Your task to perform on an android device: What's the weather today? Image 0: 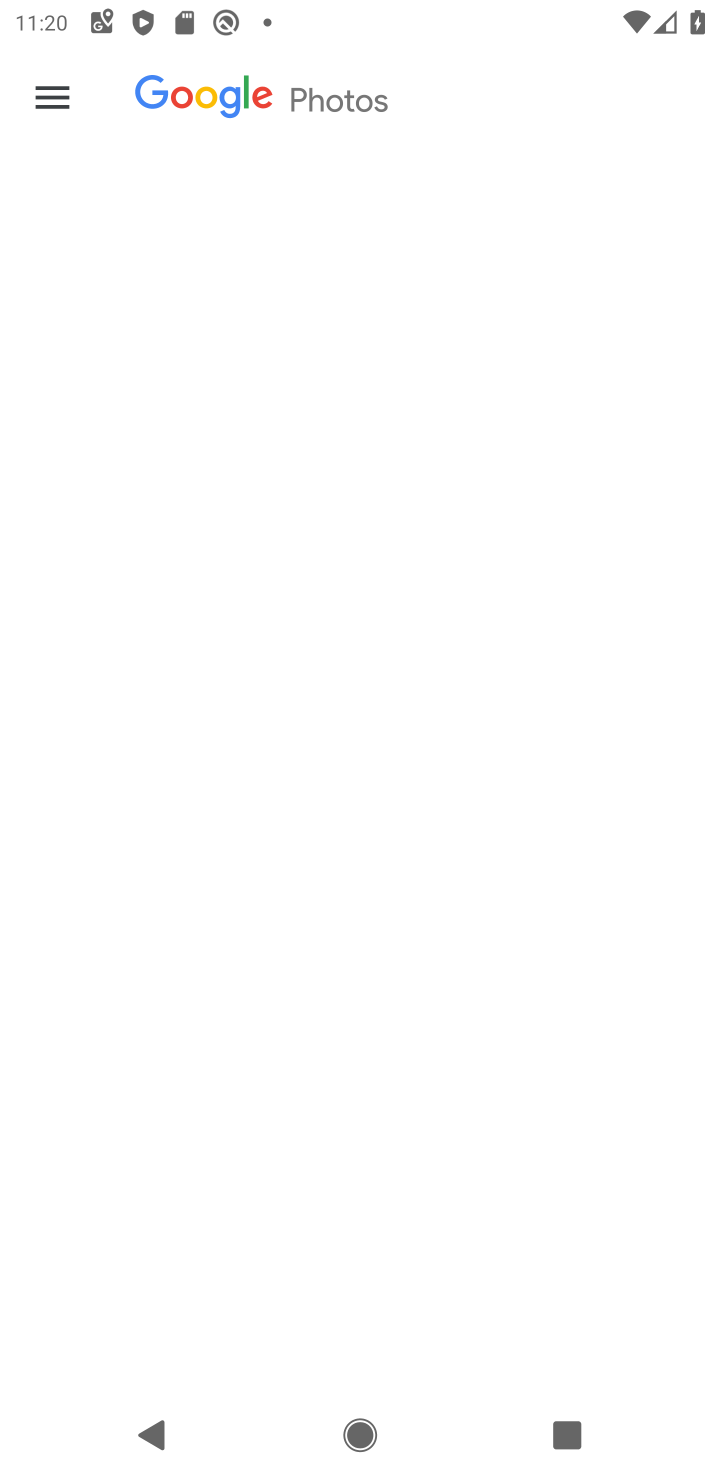
Step 0: drag from (607, 1059) to (553, 563)
Your task to perform on an android device: What's the weather today? Image 1: 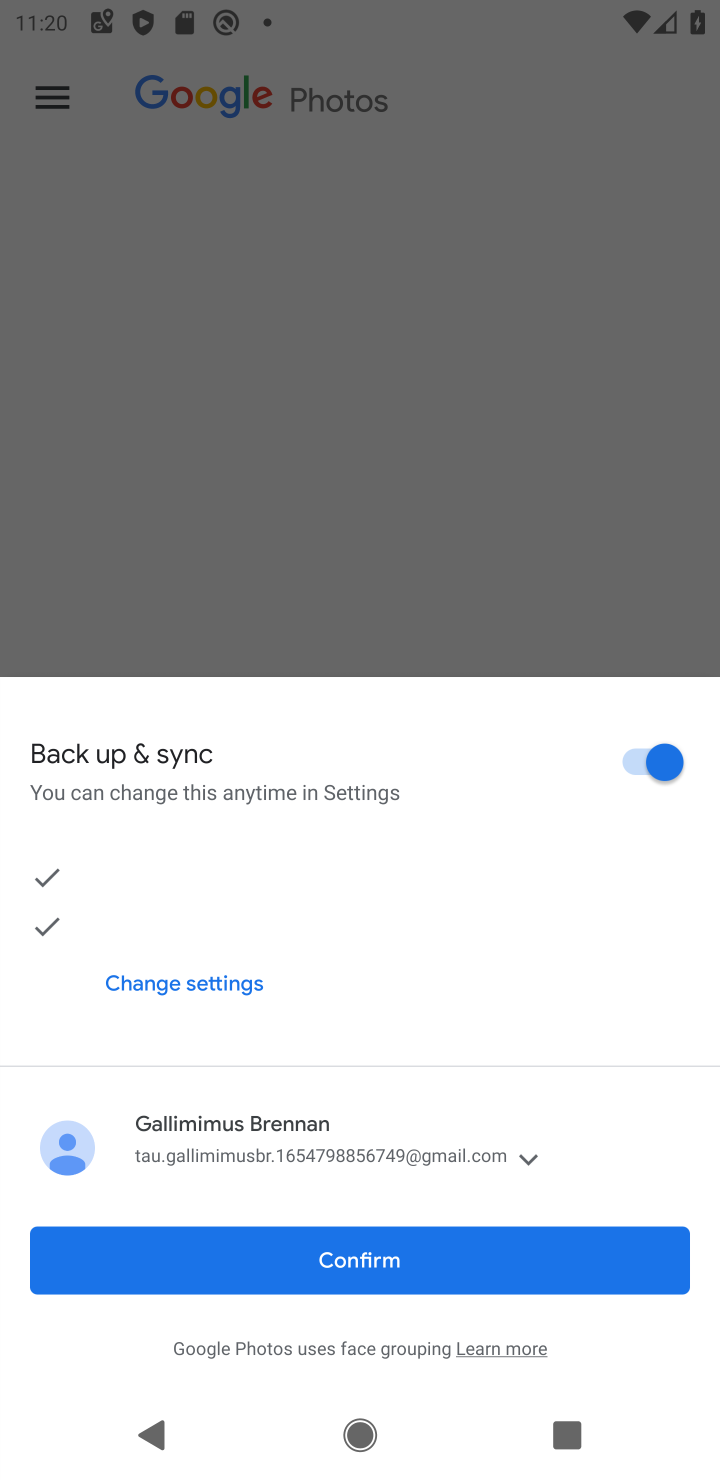
Step 1: press home button
Your task to perform on an android device: What's the weather today? Image 2: 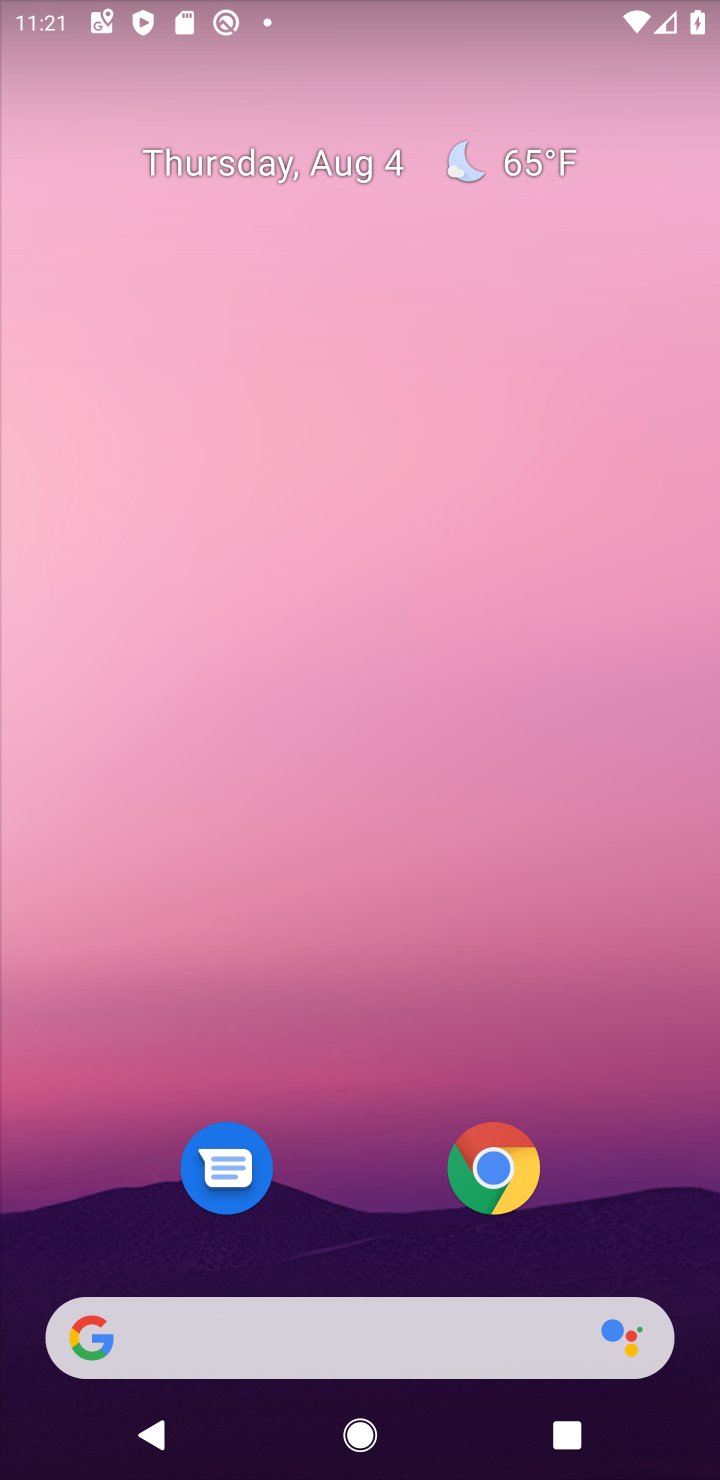
Step 2: drag from (698, 1205) to (494, 51)
Your task to perform on an android device: What's the weather today? Image 3: 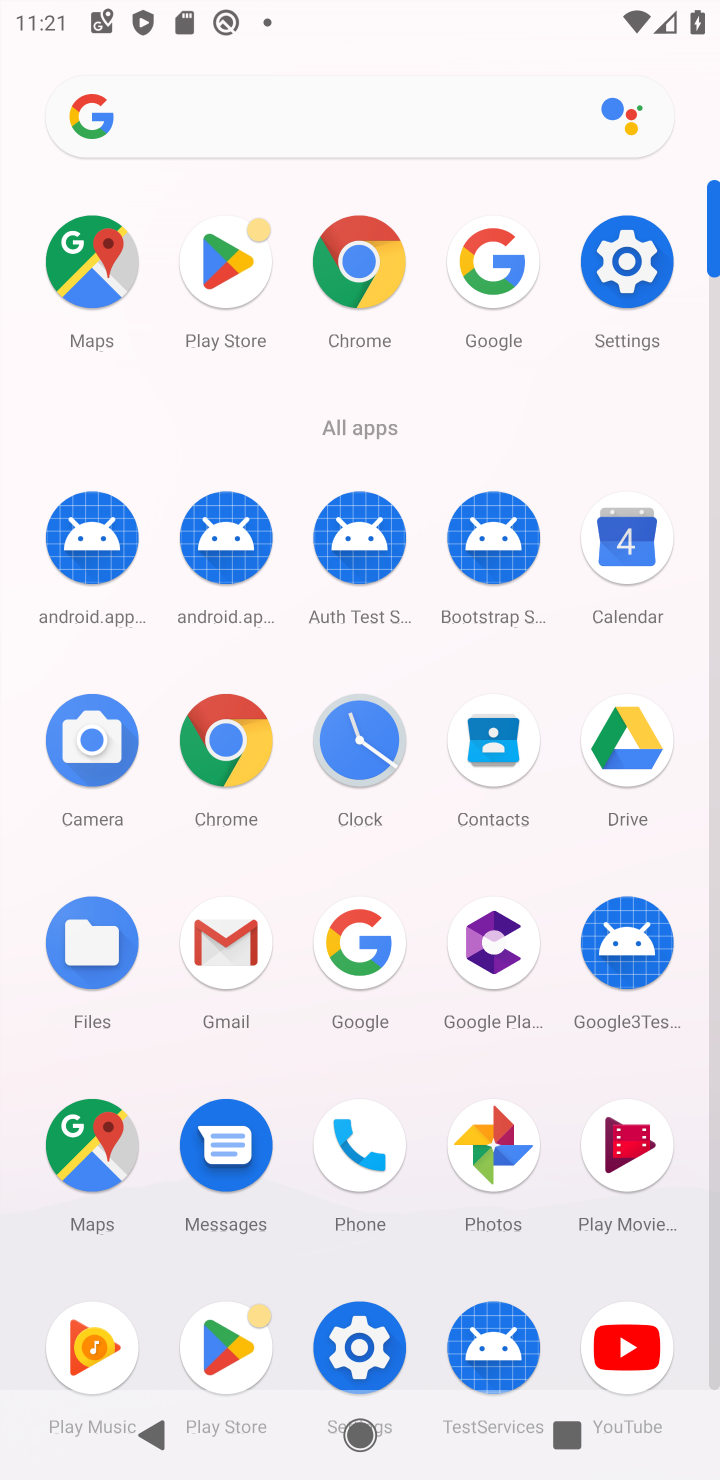
Step 3: click (361, 958)
Your task to perform on an android device: What's the weather today? Image 4: 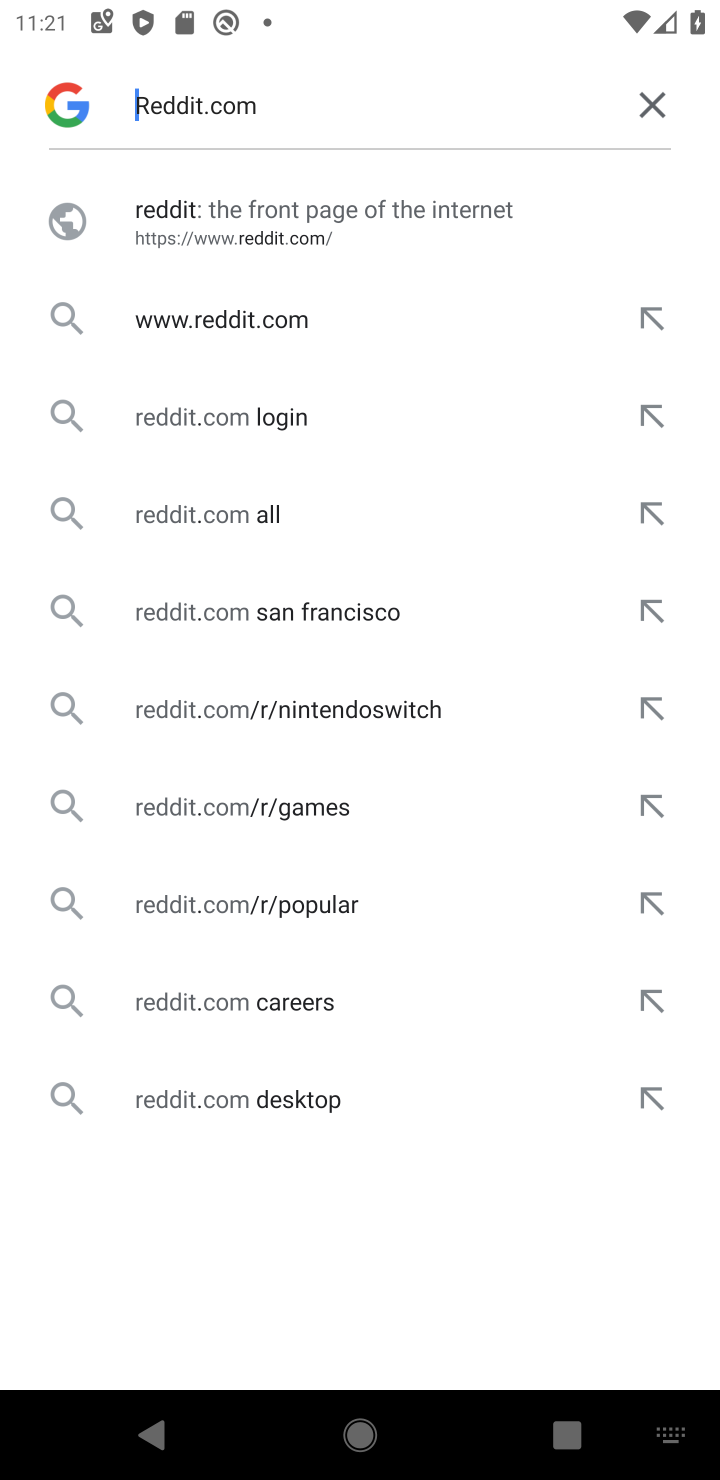
Step 4: click (643, 117)
Your task to perform on an android device: What's the weather today? Image 5: 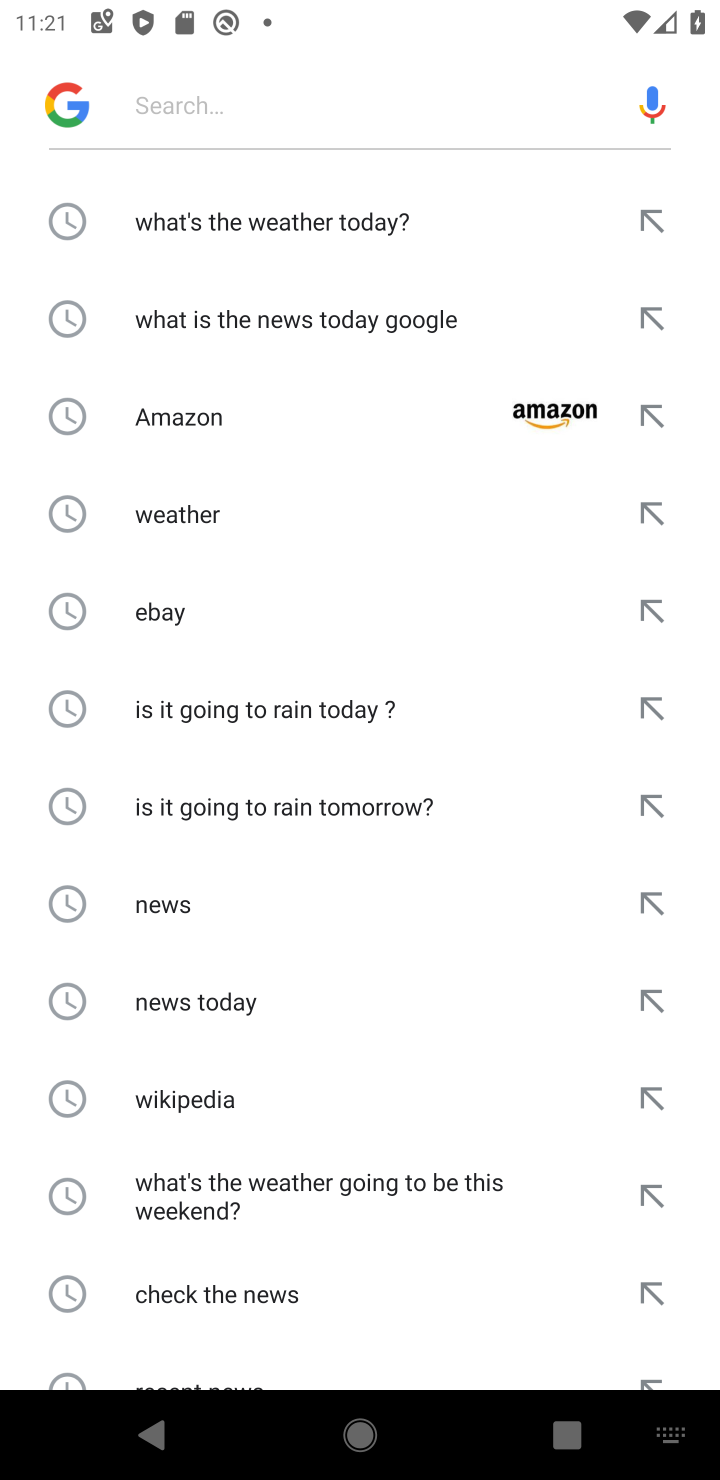
Step 5: click (243, 229)
Your task to perform on an android device: What's the weather today? Image 6: 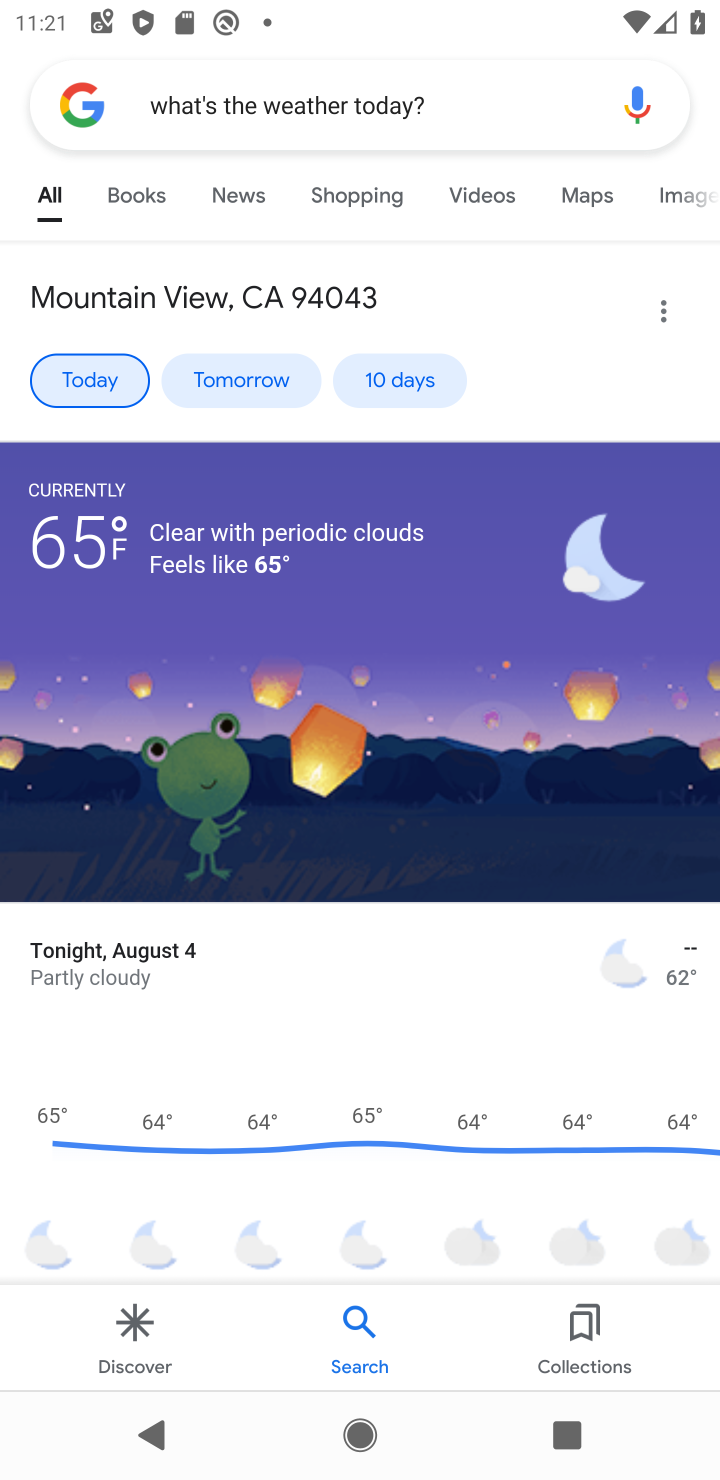
Step 6: task complete